Your task to perform on an android device: Go to Android settings Image 0: 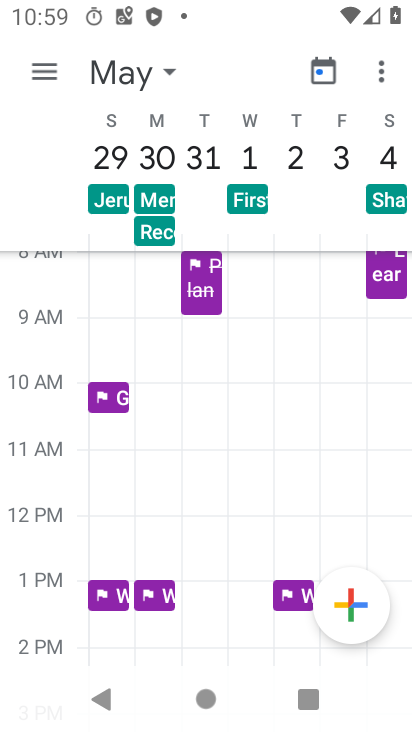
Step 0: press home button
Your task to perform on an android device: Go to Android settings Image 1: 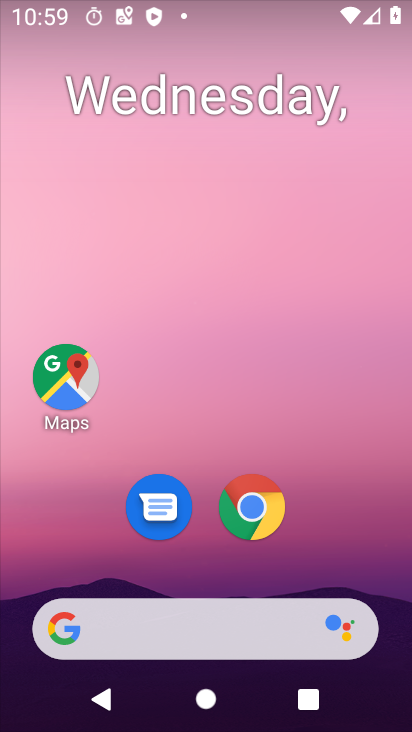
Step 1: drag from (244, 644) to (240, 1)
Your task to perform on an android device: Go to Android settings Image 2: 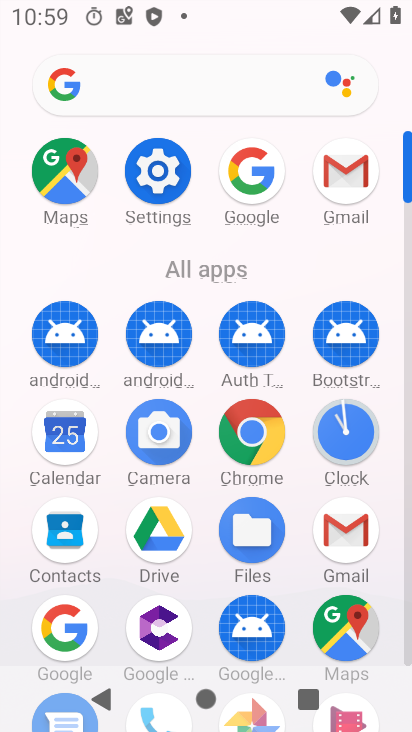
Step 2: click (168, 175)
Your task to perform on an android device: Go to Android settings Image 3: 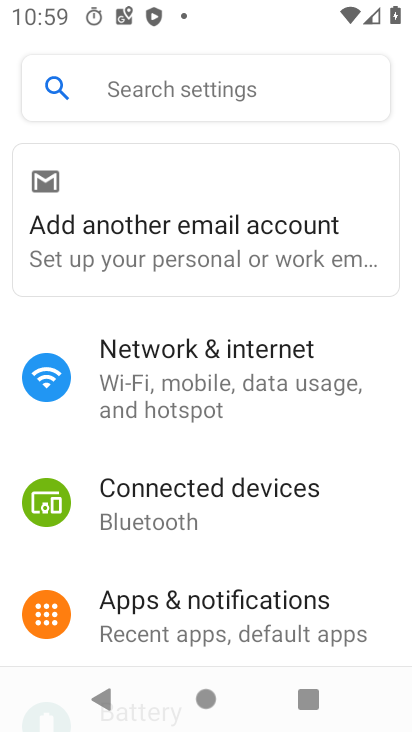
Step 3: task complete